Your task to perform on an android device: Open Google Chrome and click the shortcut for Amazon.com Image 0: 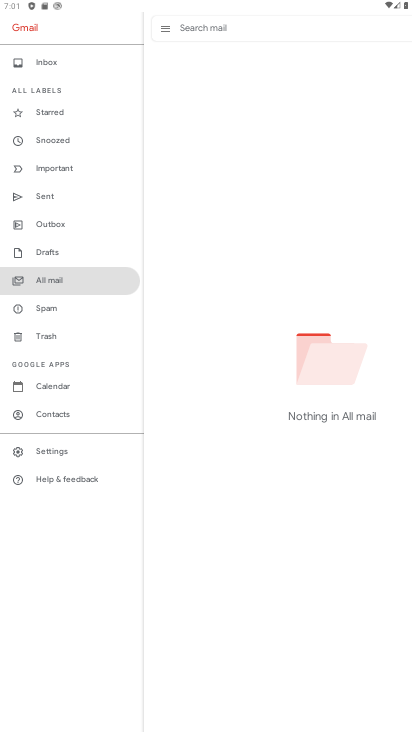
Step 0: press home button
Your task to perform on an android device: Open Google Chrome and click the shortcut for Amazon.com Image 1: 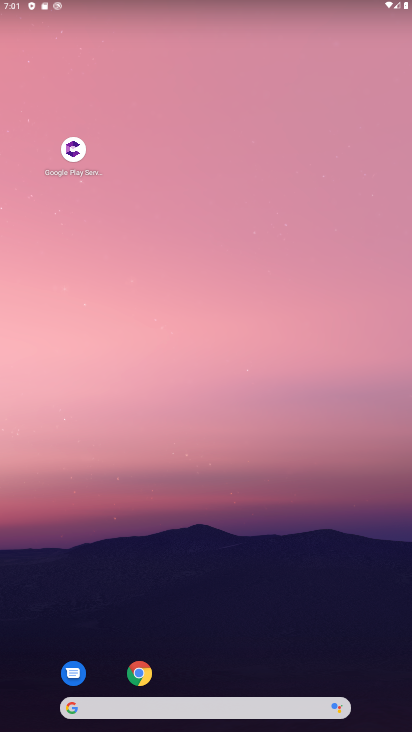
Step 1: click (144, 667)
Your task to perform on an android device: Open Google Chrome and click the shortcut for Amazon.com Image 2: 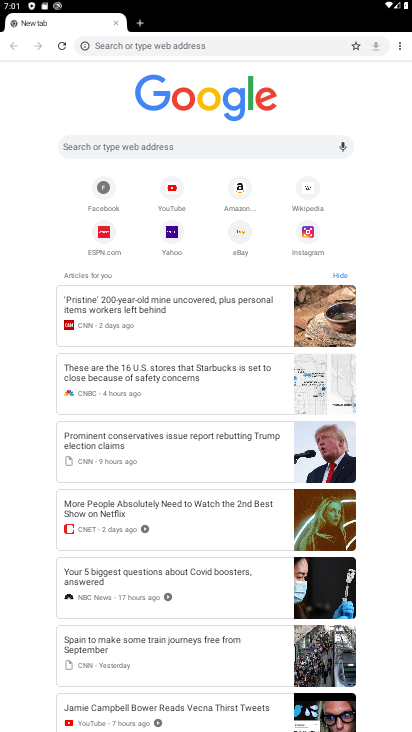
Step 2: click (237, 177)
Your task to perform on an android device: Open Google Chrome and click the shortcut for Amazon.com Image 3: 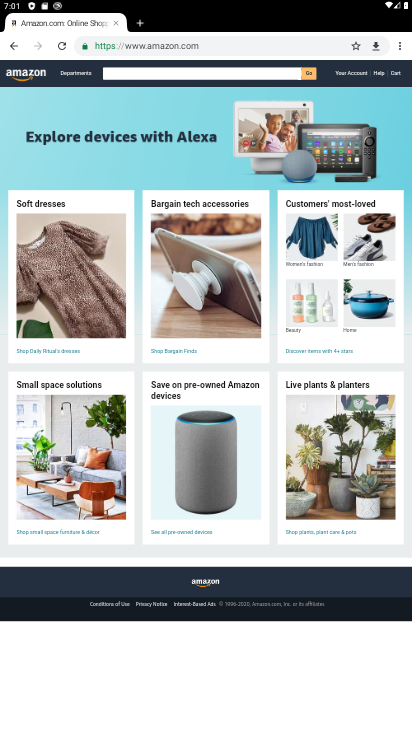
Step 3: task complete